Your task to perform on an android device: Do I have any events this weekend? Image 0: 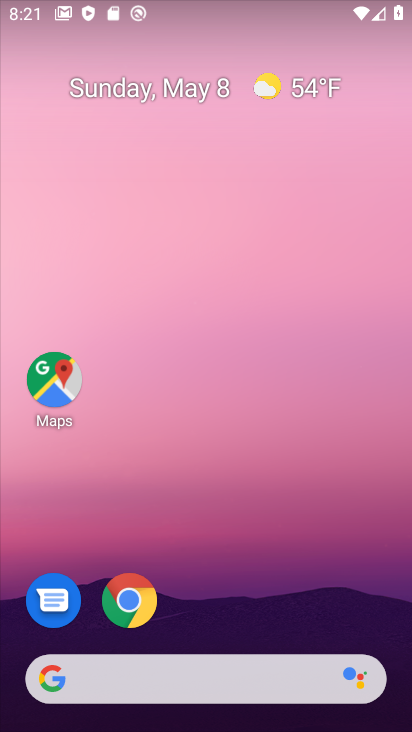
Step 0: click (183, 86)
Your task to perform on an android device: Do I have any events this weekend? Image 1: 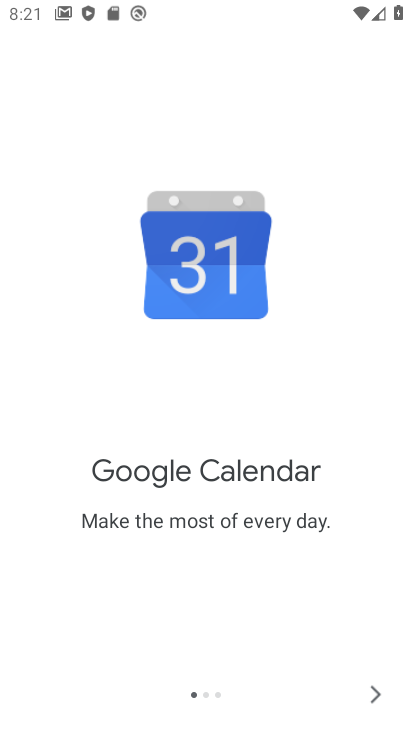
Step 1: click (395, 698)
Your task to perform on an android device: Do I have any events this weekend? Image 2: 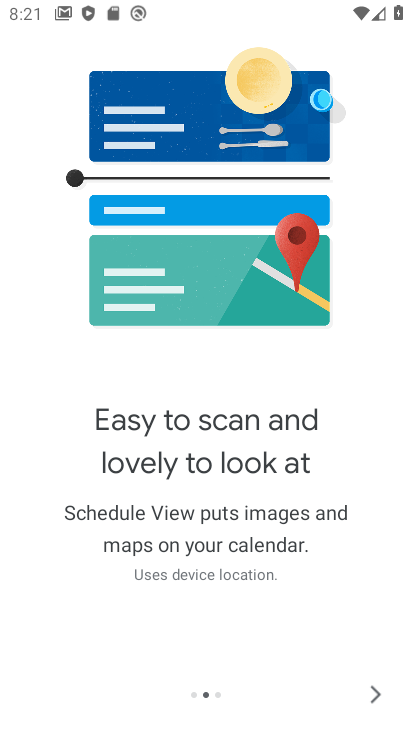
Step 2: click (395, 698)
Your task to perform on an android device: Do I have any events this weekend? Image 3: 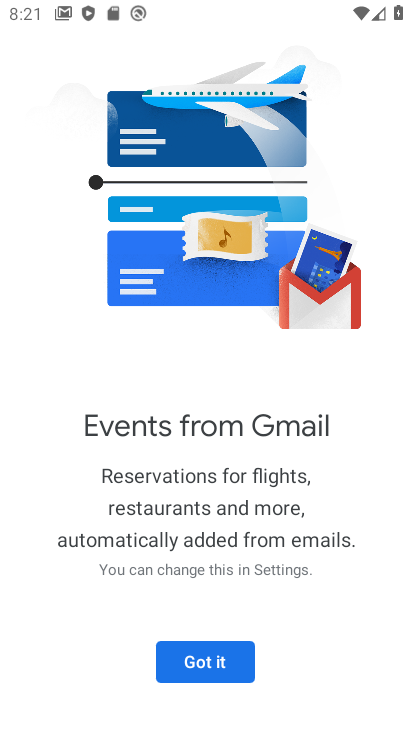
Step 3: click (206, 648)
Your task to perform on an android device: Do I have any events this weekend? Image 4: 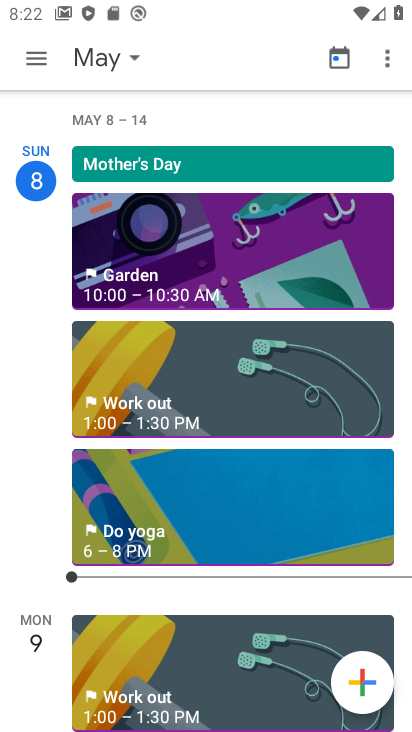
Step 4: click (95, 73)
Your task to perform on an android device: Do I have any events this weekend? Image 5: 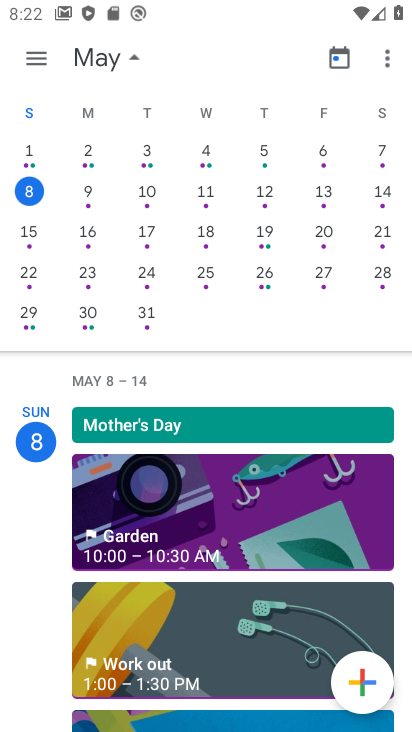
Step 5: click (323, 286)
Your task to perform on an android device: Do I have any events this weekend? Image 6: 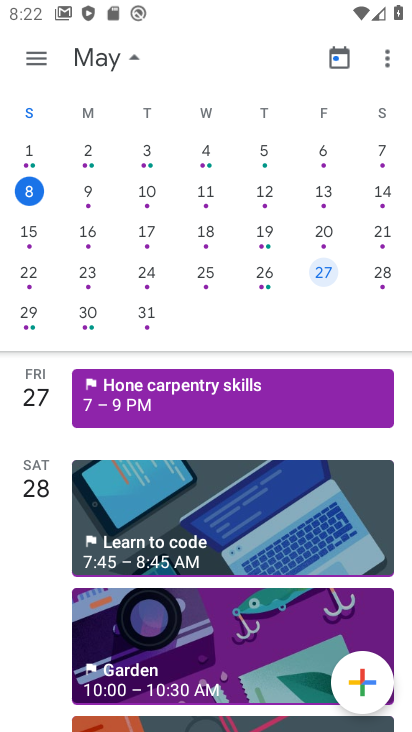
Step 6: click (380, 194)
Your task to perform on an android device: Do I have any events this weekend? Image 7: 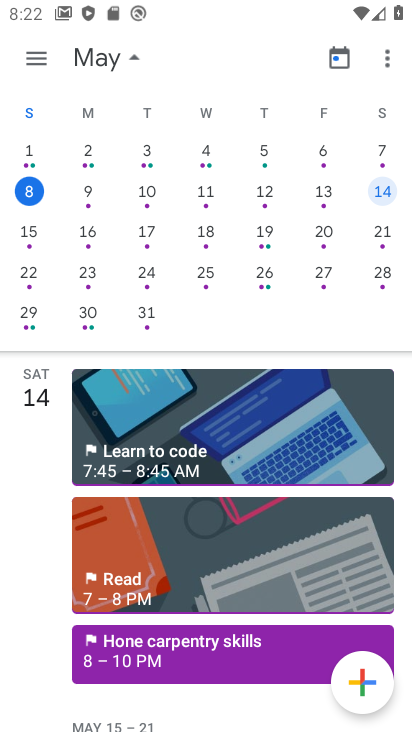
Step 7: task complete